Your task to perform on an android device: turn on wifi Image 0: 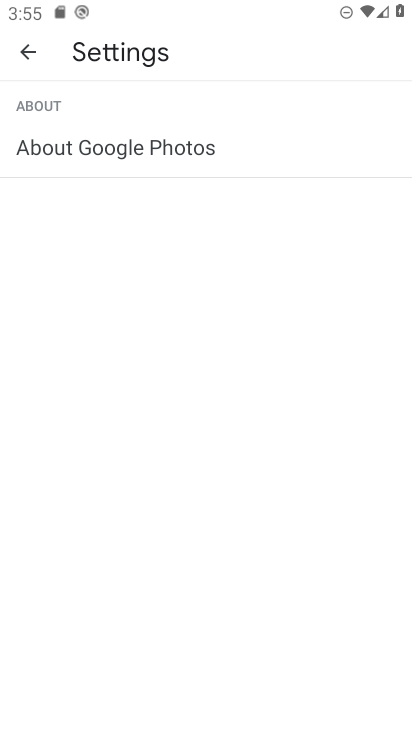
Step 0: press home button
Your task to perform on an android device: turn on wifi Image 1: 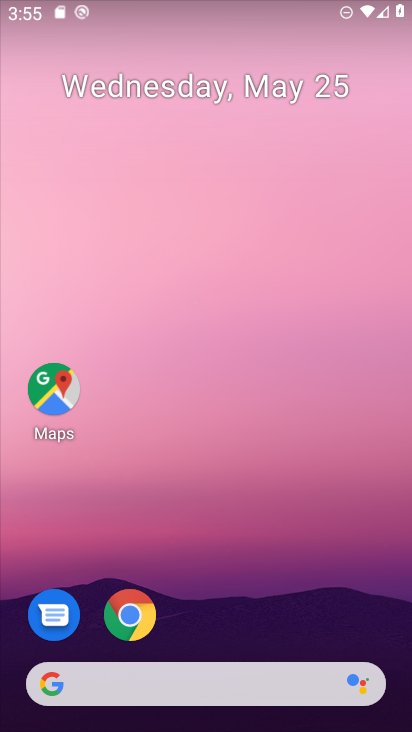
Step 1: drag from (250, 560) to (275, 55)
Your task to perform on an android device: turn on wifi Image 2: 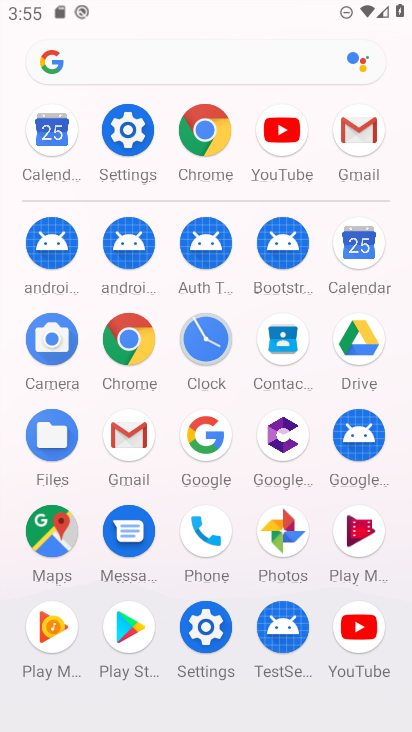
Step 2: click (125, 128)
Your task to perform on an android device: turn on wifi Image 3: 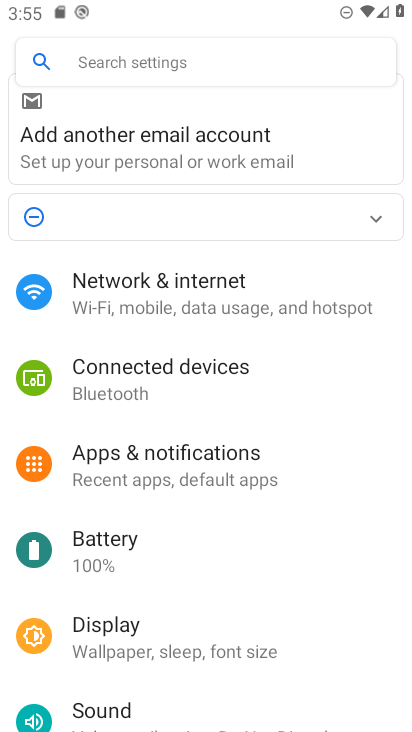
Step 3: click (225, 285)
Your task to perform on an android device: turn on wifi Image 4: 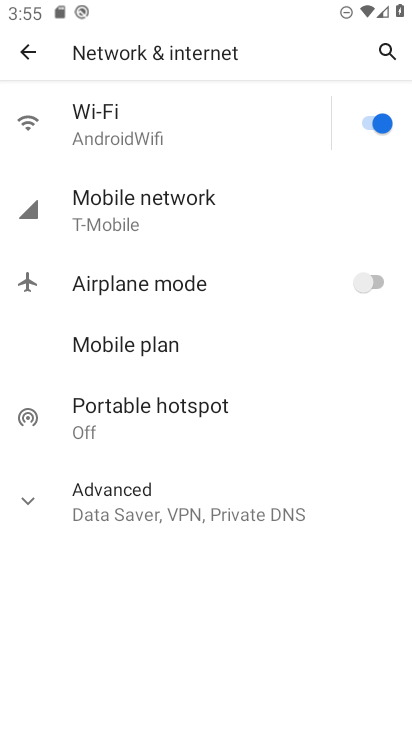
Step 4: click (153, 130)
Your task to perform on an android device: turn on wifi Image 5: 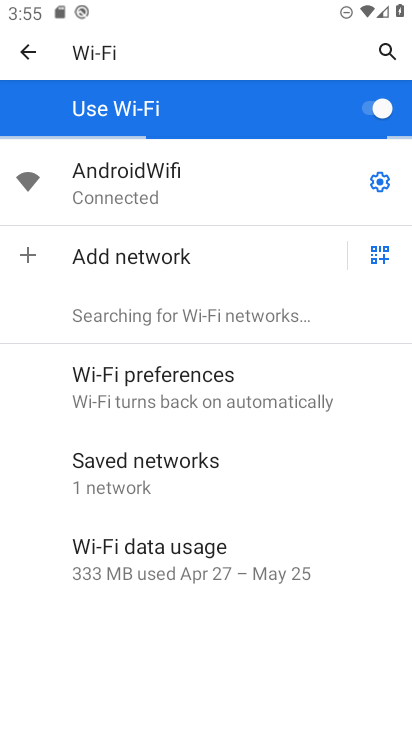
Step 5: task complete